Your task to perform on an android device: Open calendar and show me the first week of next month Image 0: 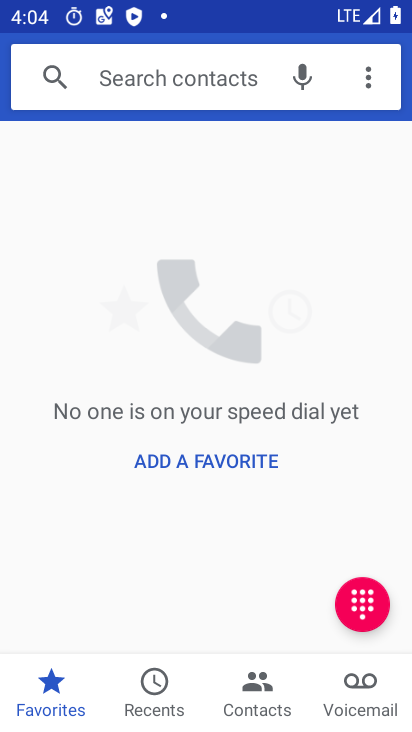
Step 0: press home button
Your task to perform on an android device: Open calendar and show me the first week of next month Image 1: 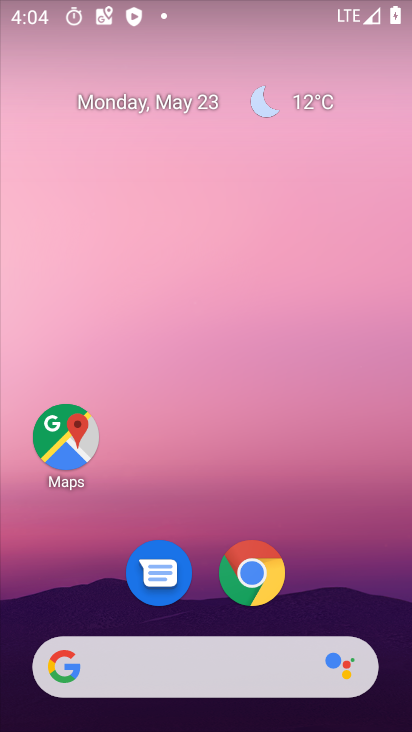
Step 1: drag from (9, 632) to (283, 148)
Your task to perform on an android device: Open calendar and show me the first week of next month Image 2: 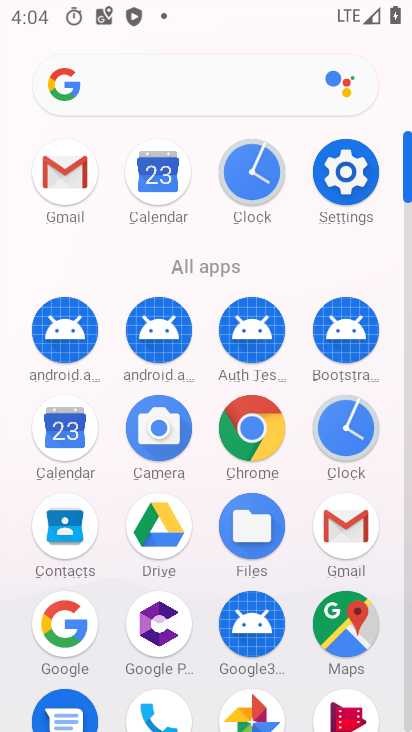
Step 2: click (150, 164)
Your task to perform on an android device: Open calendar and show me the first week of next month Image 3: 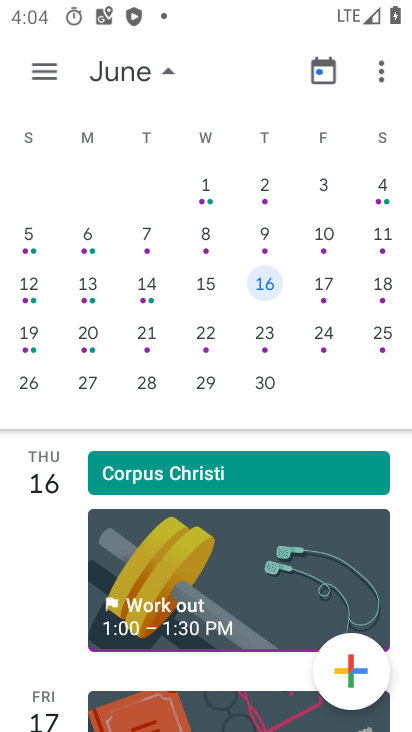
Step 3: click (209, 197)
Your task to perform on an android device: Open calendar and show me the first week of next month Image 4: 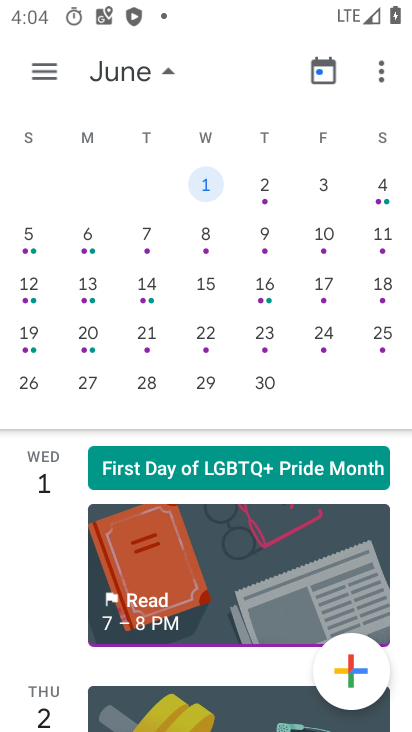
Step 4: click (259, 192)
Your task to perform on an android device: Open calendar and show me the first week of next month Image 5: 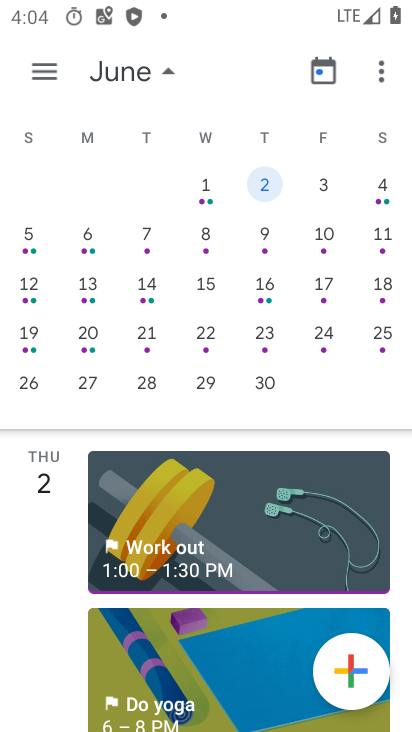
Step 5: click (329, 185)
Your task to perform on an android device: Open calendar and show me the first week of next month Image 6: 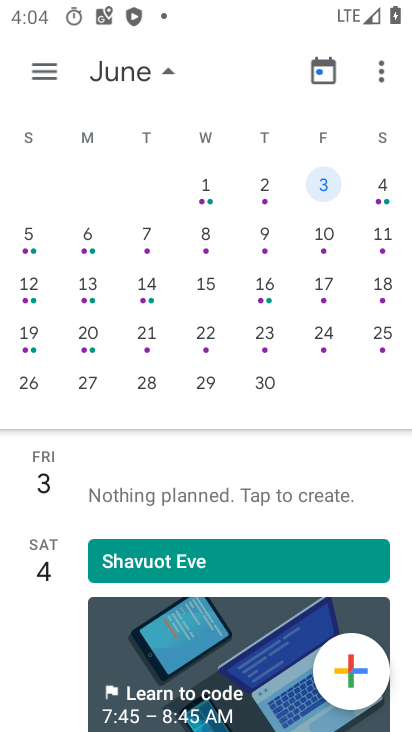
Step 6: click (372, 192)
Your task to perform on an android device: Open calendar and show me the first week of next month Image 7: 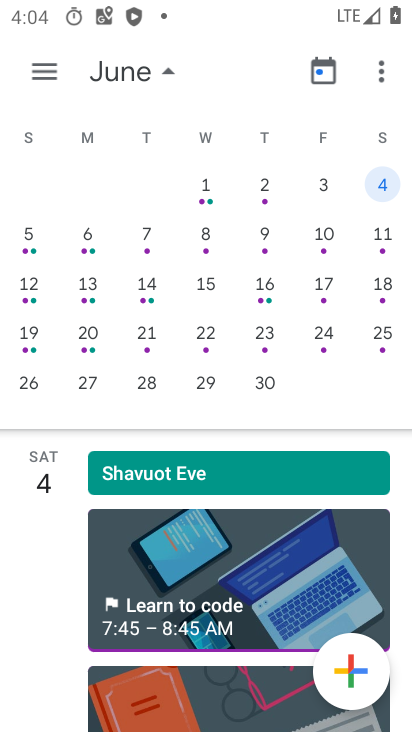
Step 7: task complete